Your task to perform on an android device: Is it going to rain today? Image 0: 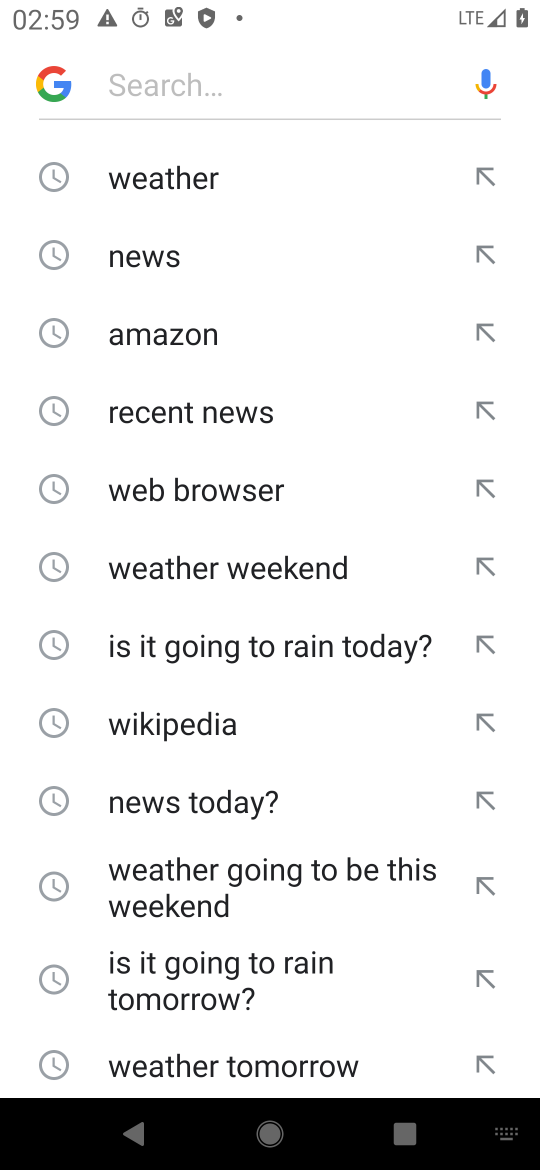
Step 0: type "is it going to rain today"
Your task to perform on an android device: Is it going to rain today? Image 1: 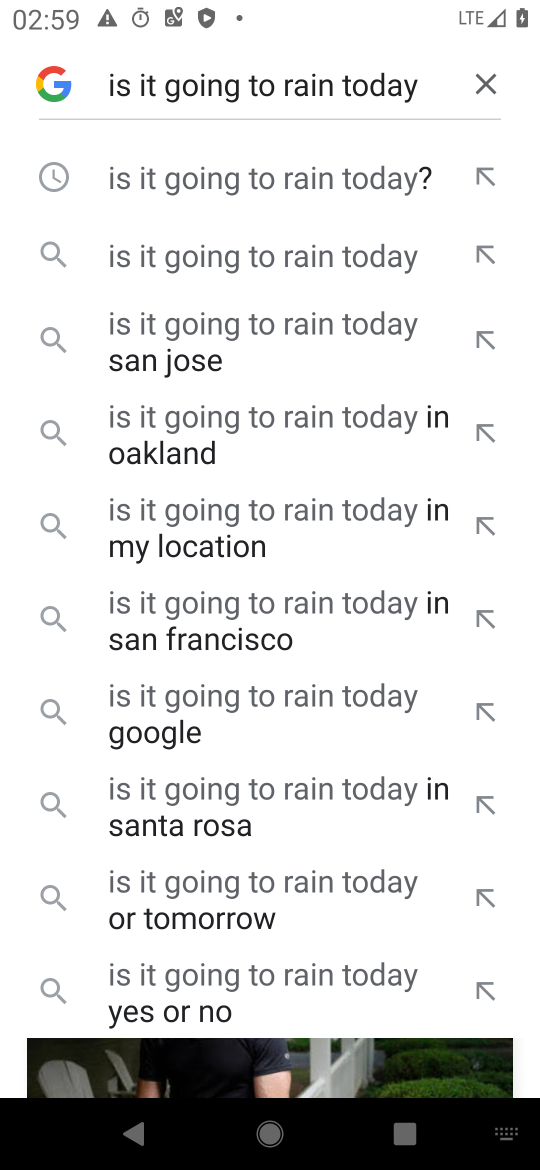
Step 1: click (420, 170)
Your task to perform on an android device: Is it going to rain today? Image 2: 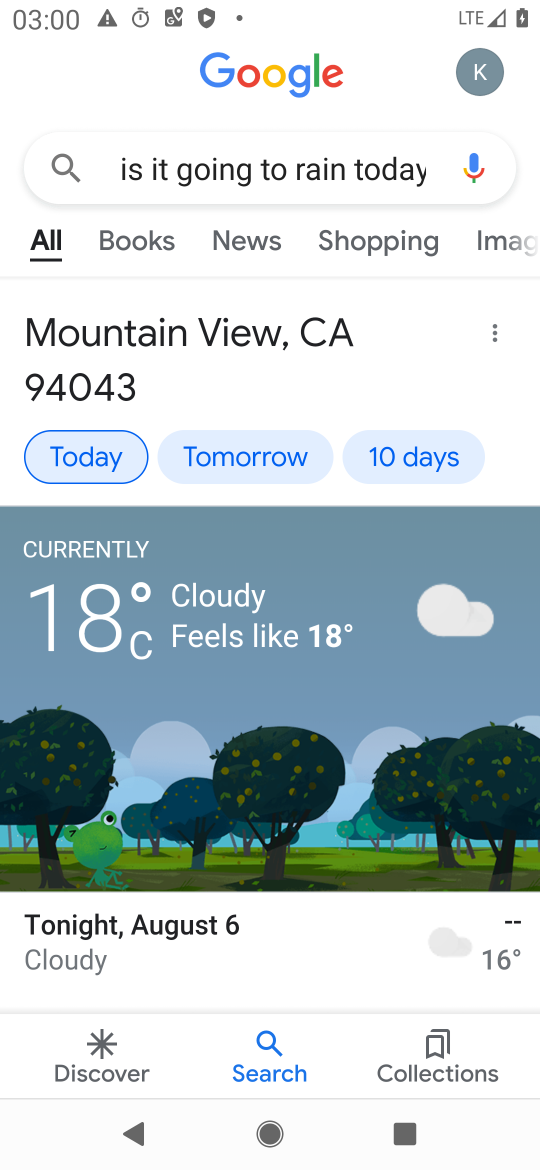
Step 2: task complete